Your task to perform on an android device: open app "DuckDuckGo Privacy Browser" (install if not already installed) and go to login screen Image 0: 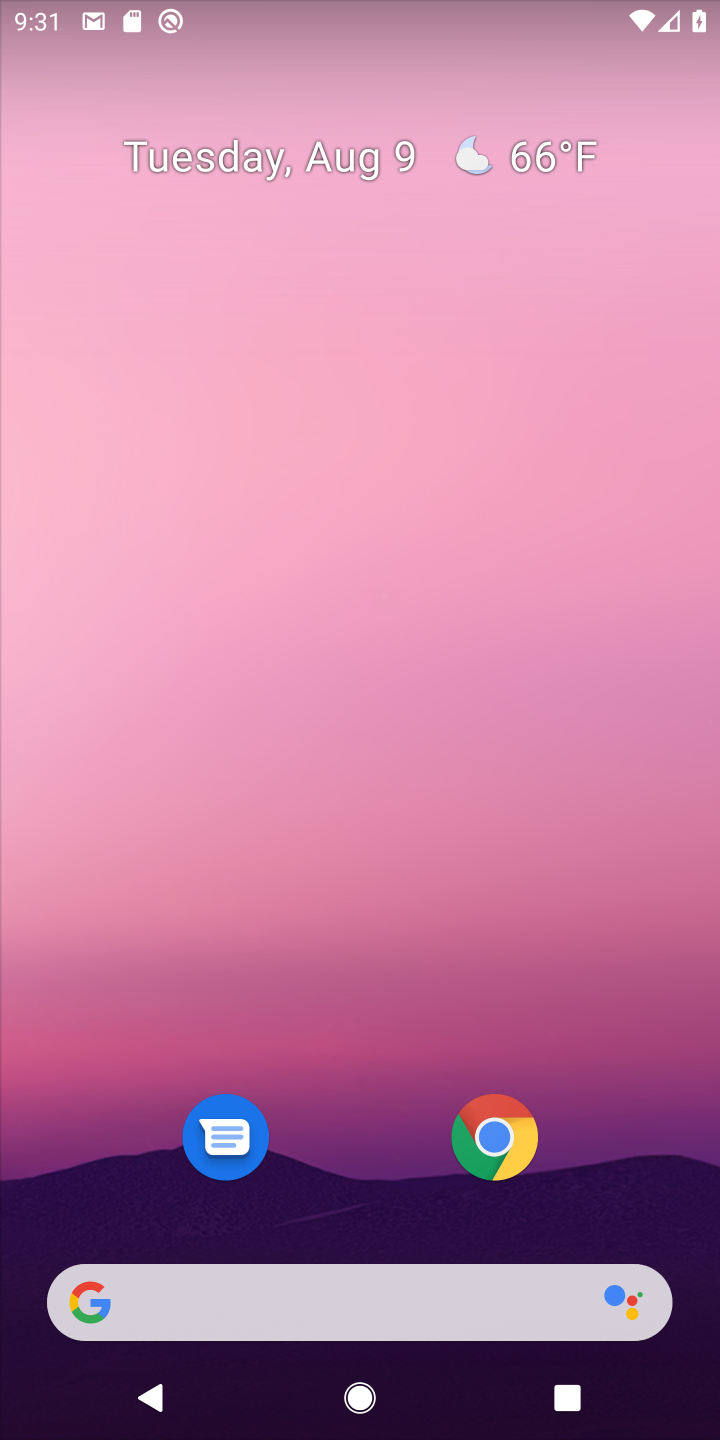
Step 0: drag from (346, 1151) to (333, 253)
Your task to perform on an android device: open app "DuckDuckGo Privacy Browser" (install if not already installed) and go to login screen Image 1: 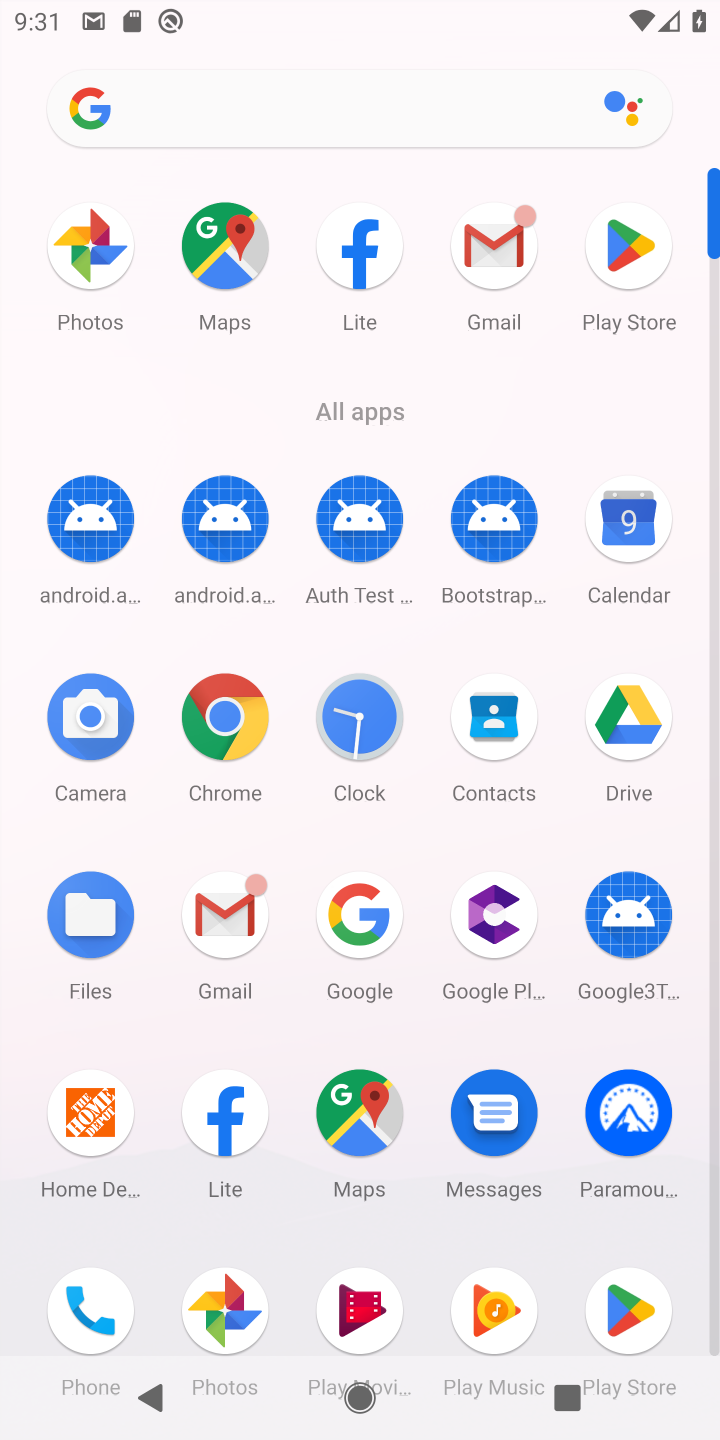
Step 1: click (627, 256)
Your task to perform on an android device: open app "DuckDuckGo Privacy Browser" (install if not already installed) and go to login screen Image 2: 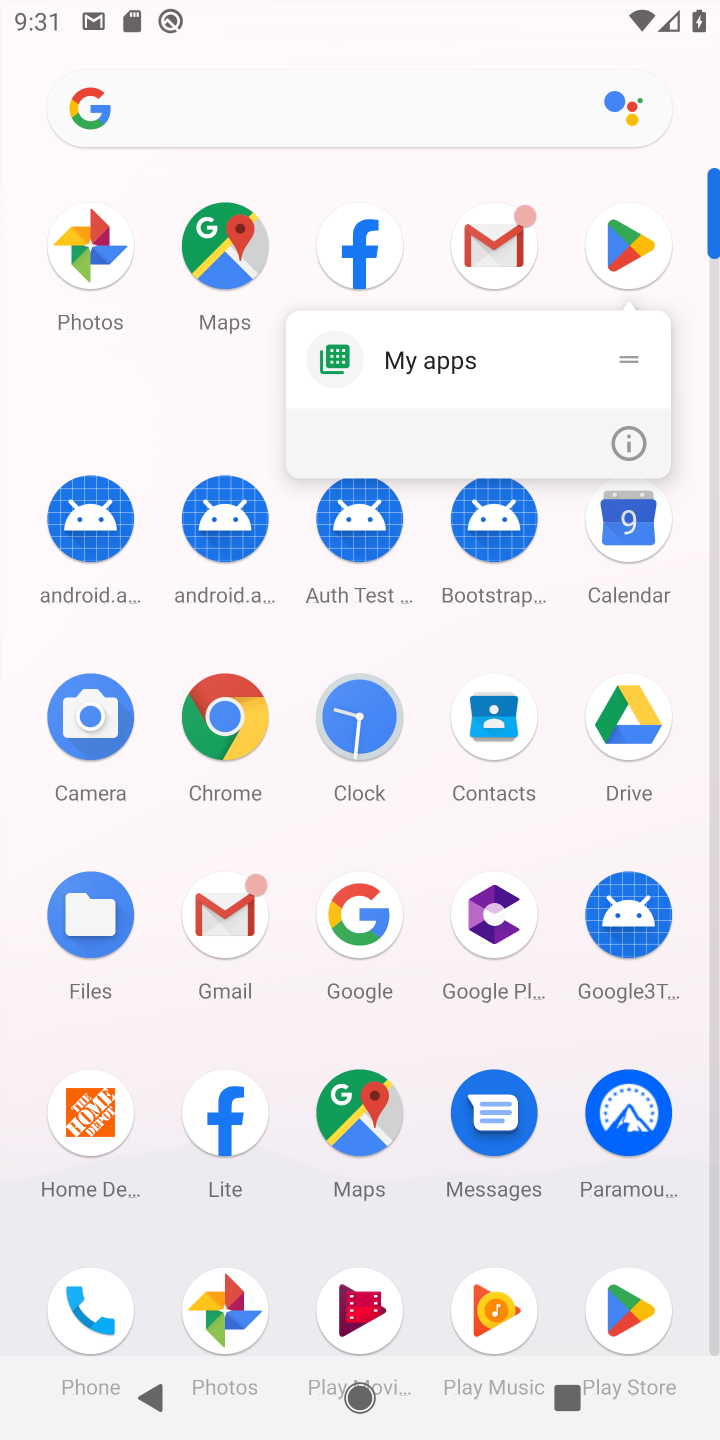
Step 2: click (601, 239)
Your task to perform on an android device: open app "DuckDuckGo Privacy Browser" (install if not already installed) and go to login screen Image 3: 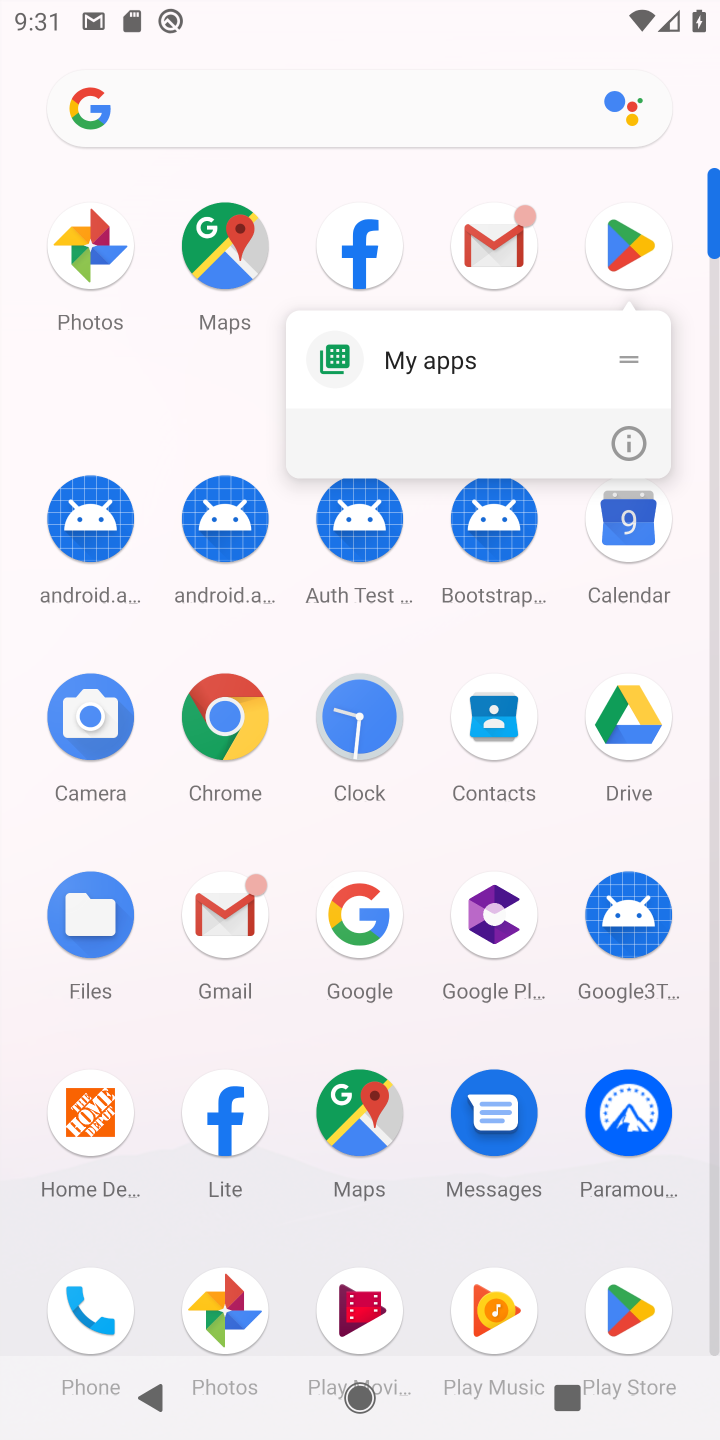
Step 3: click (610, 237)
Your task to perform on an android device: open app "DuckDuckGo Privacy Browser" (install if not already installed) and go to login screen Image 4: 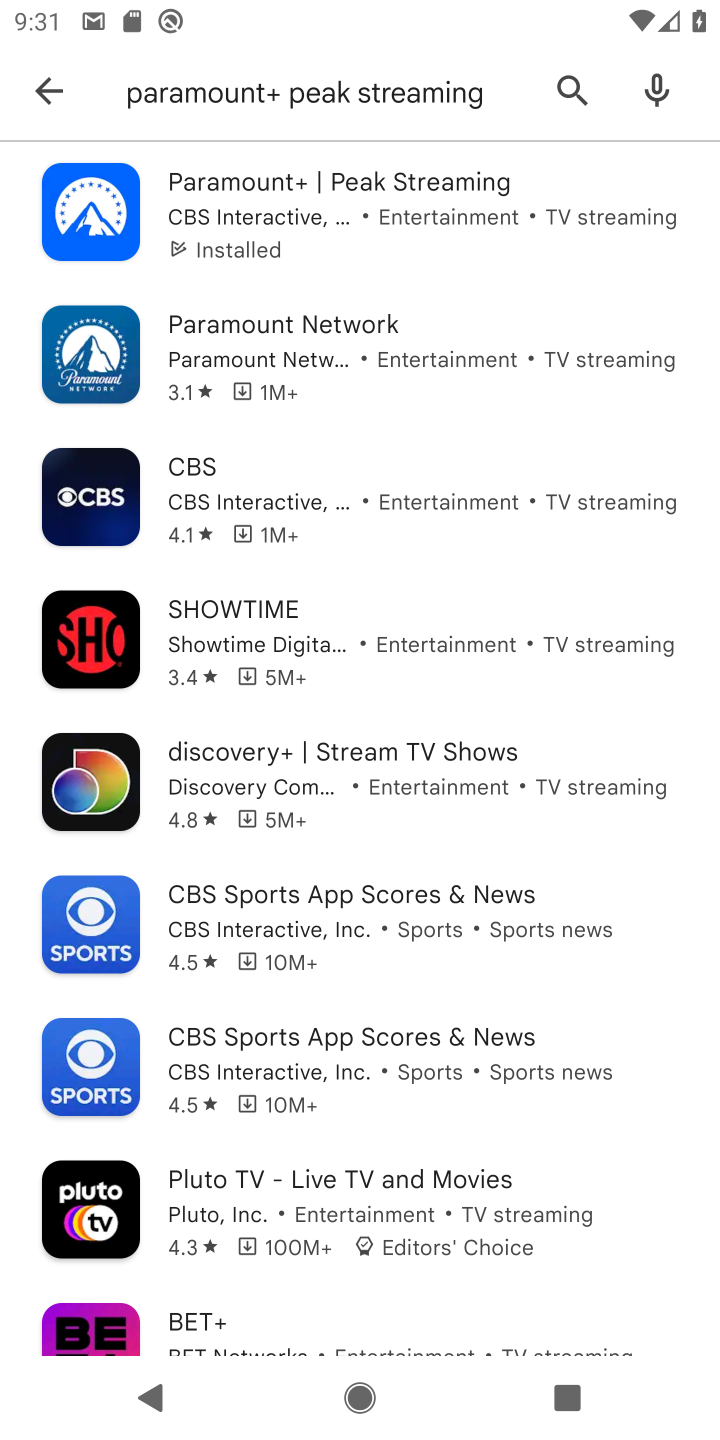
Step 4: click (577, 82)
Your task to perform on an android device: open app "DuckDuckGo Privacy Browser" (install if not already installed) and go to login screen Image 5: 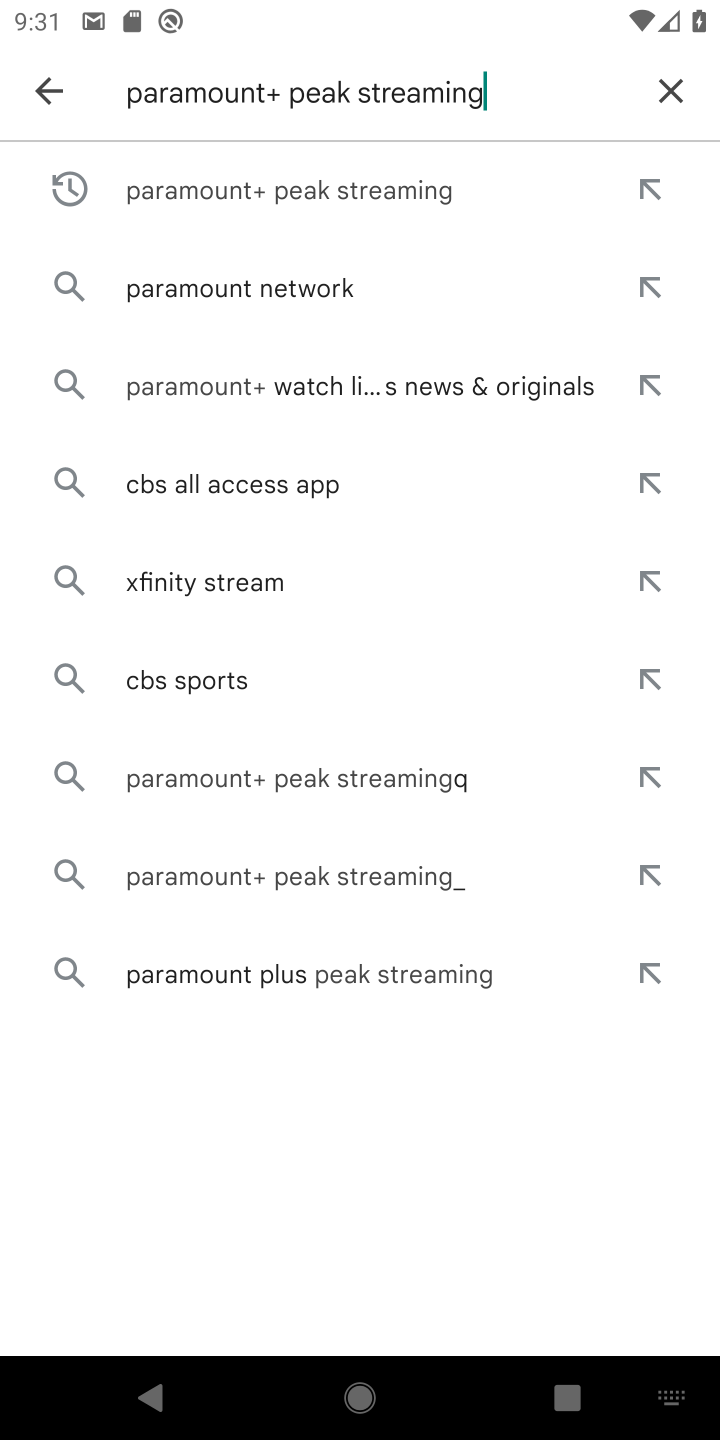
Step 5: click (660, 71)
Your task to perform on an android device: open app "DuckDuckGo Privacy Browser" (install if not already installed) and go to login screen Image 6: 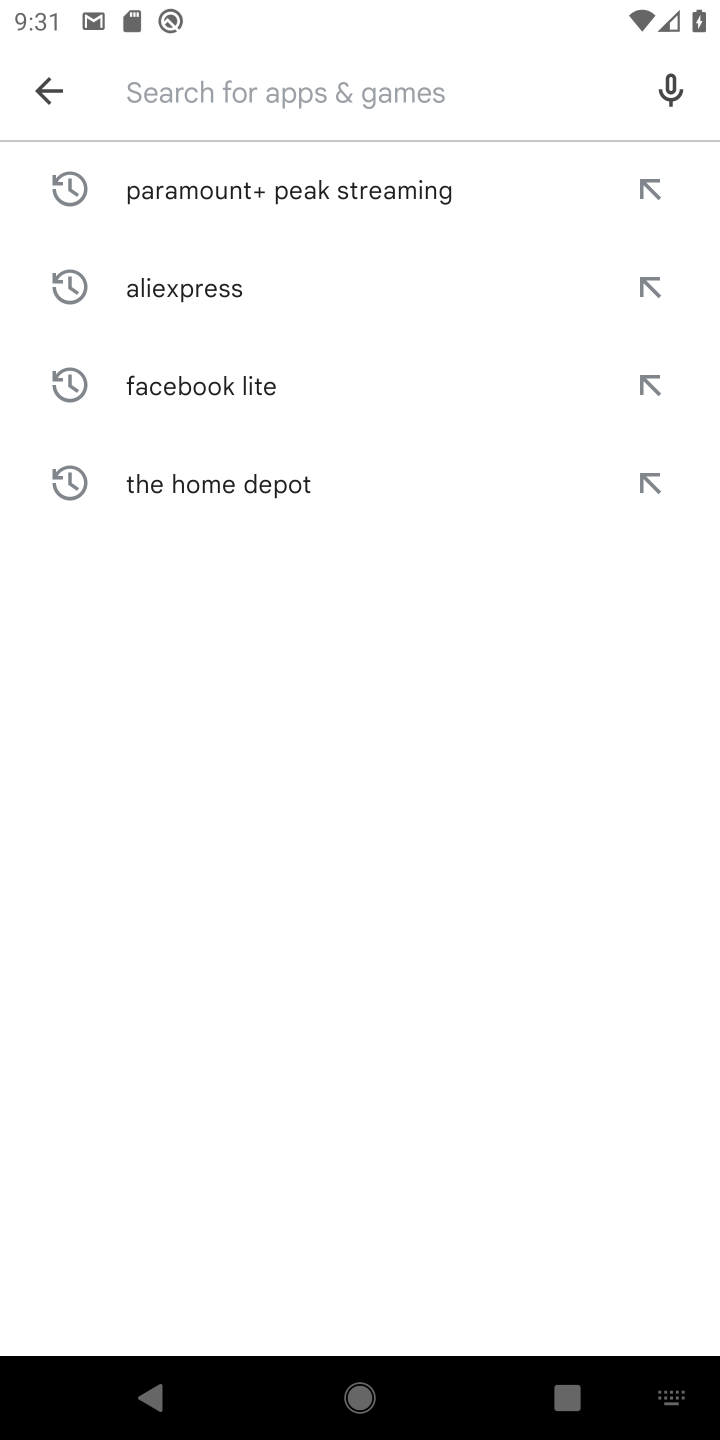
Step 6: type "DuckDuckGo Privacy Browser"
Your task to perform on an android device: open app "DuckDuckGo Privacy Browser" (install if not already installed) and go to login screen Image 7: 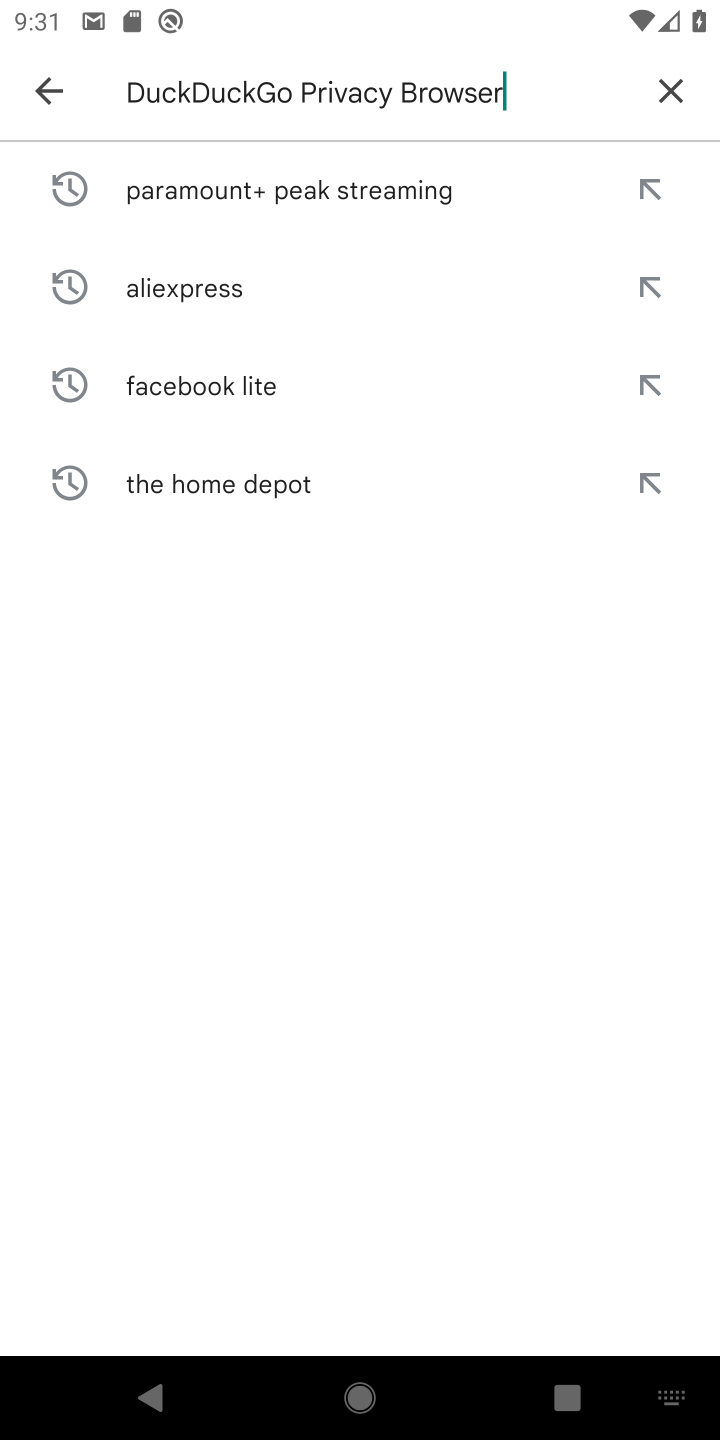
Step 7: type ""
Your task to perform on an android device: open app "DuckDuckGo Privacy Browser" (install if not already installed) and go to login screen Image 8: 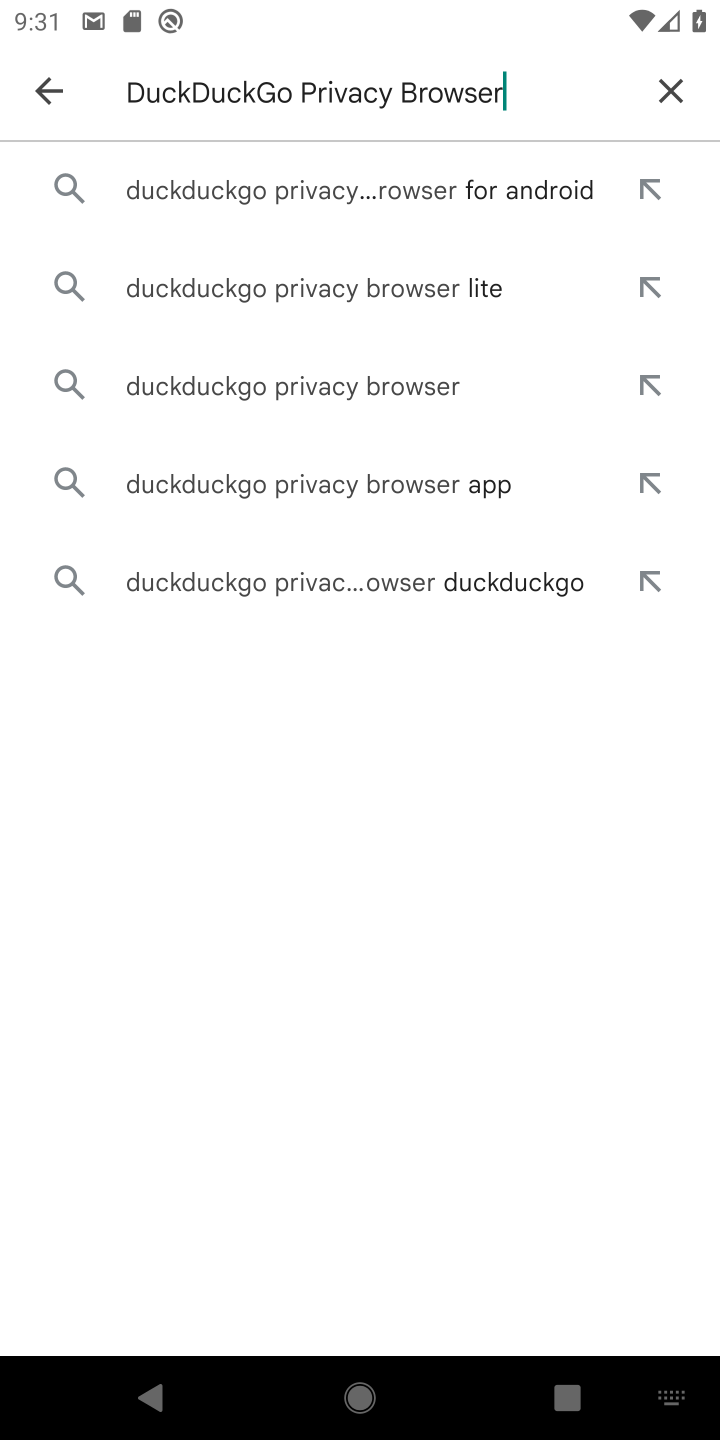
Step 8: click (222, 201)
Your task to perform on an android device: open app "DuckDuckGo Privacy Browser" (install if not already installed) and go to login screen Image 9: 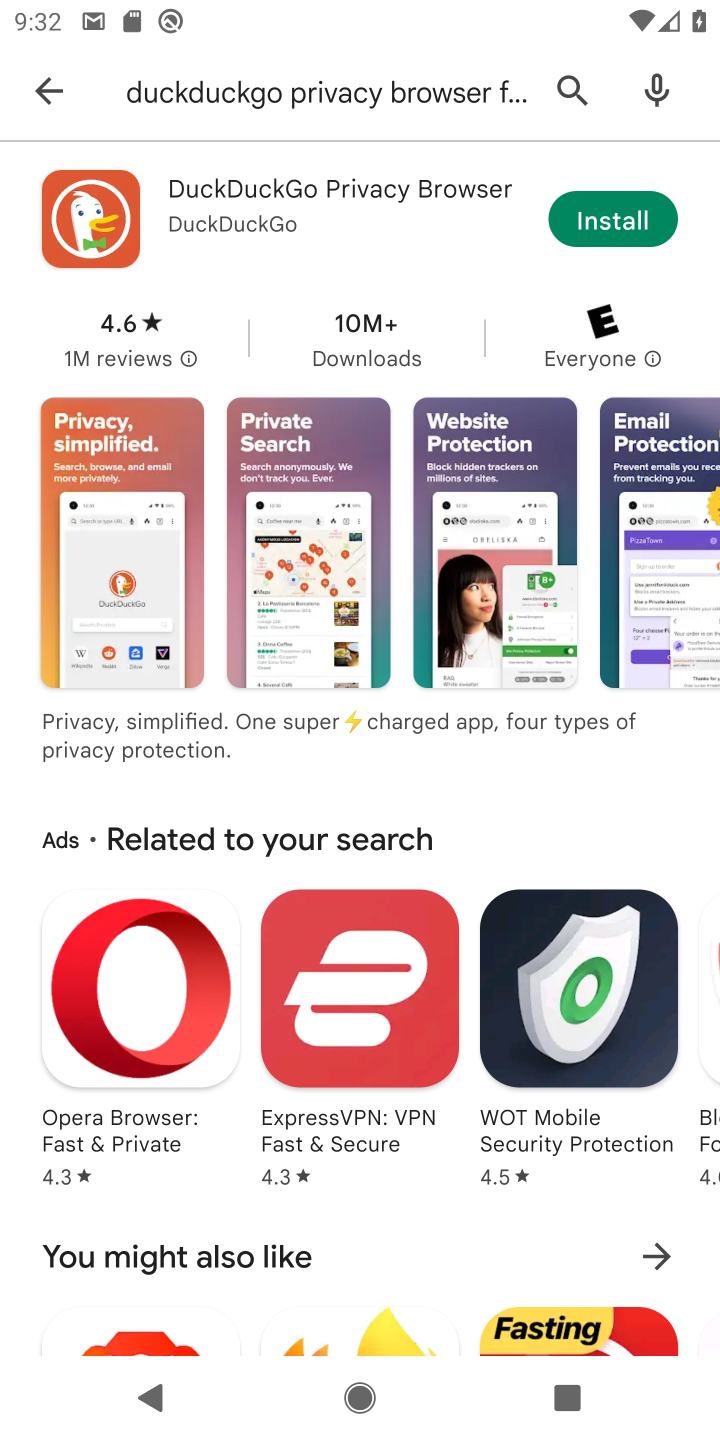
Step 9: click (611, 220)
Your task to perform on an android device: open app "DuckDuckGo Privacy Browser" (install if not already installed) and go to login screen Image 10: 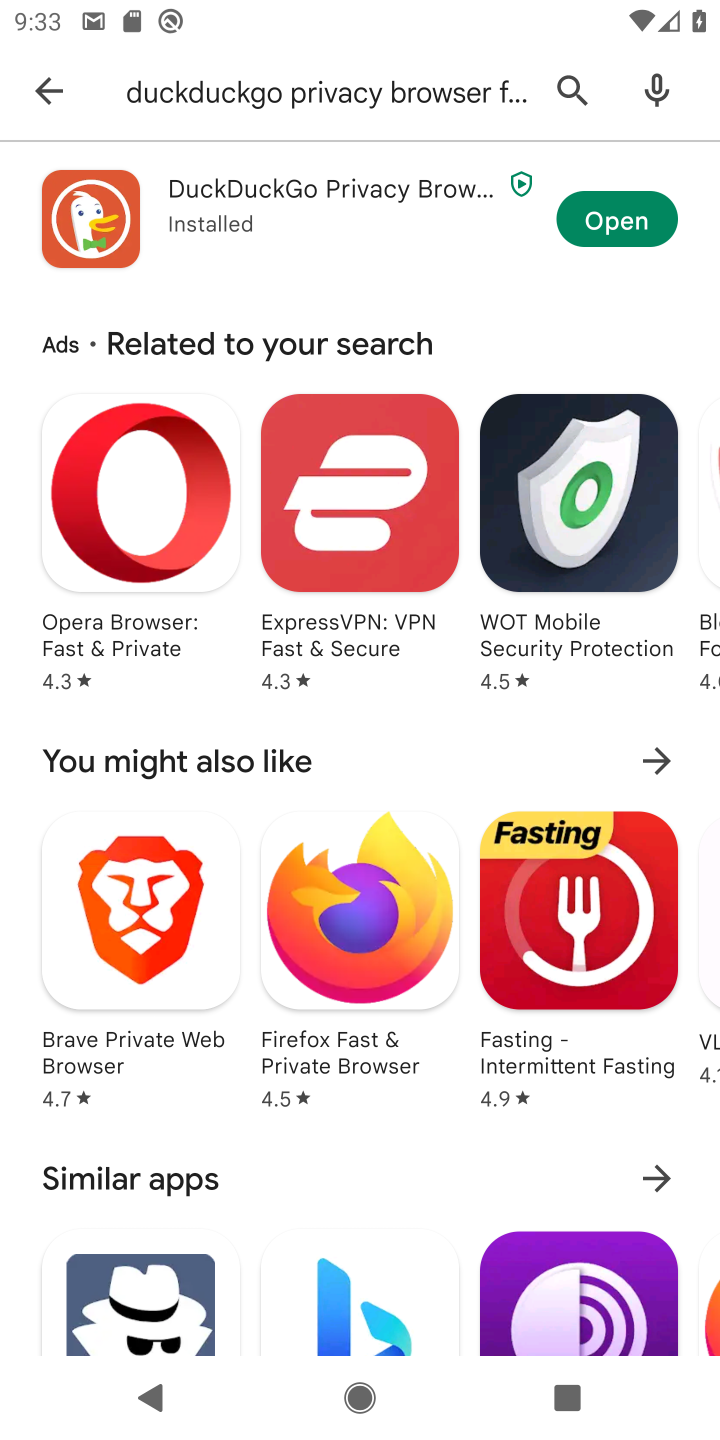
Step 10: click (596, 236)
Your task to perform on an android device: open app "DuckDuckGo Privacy Browser" (install if not already installed) and go to login screen Image 11: 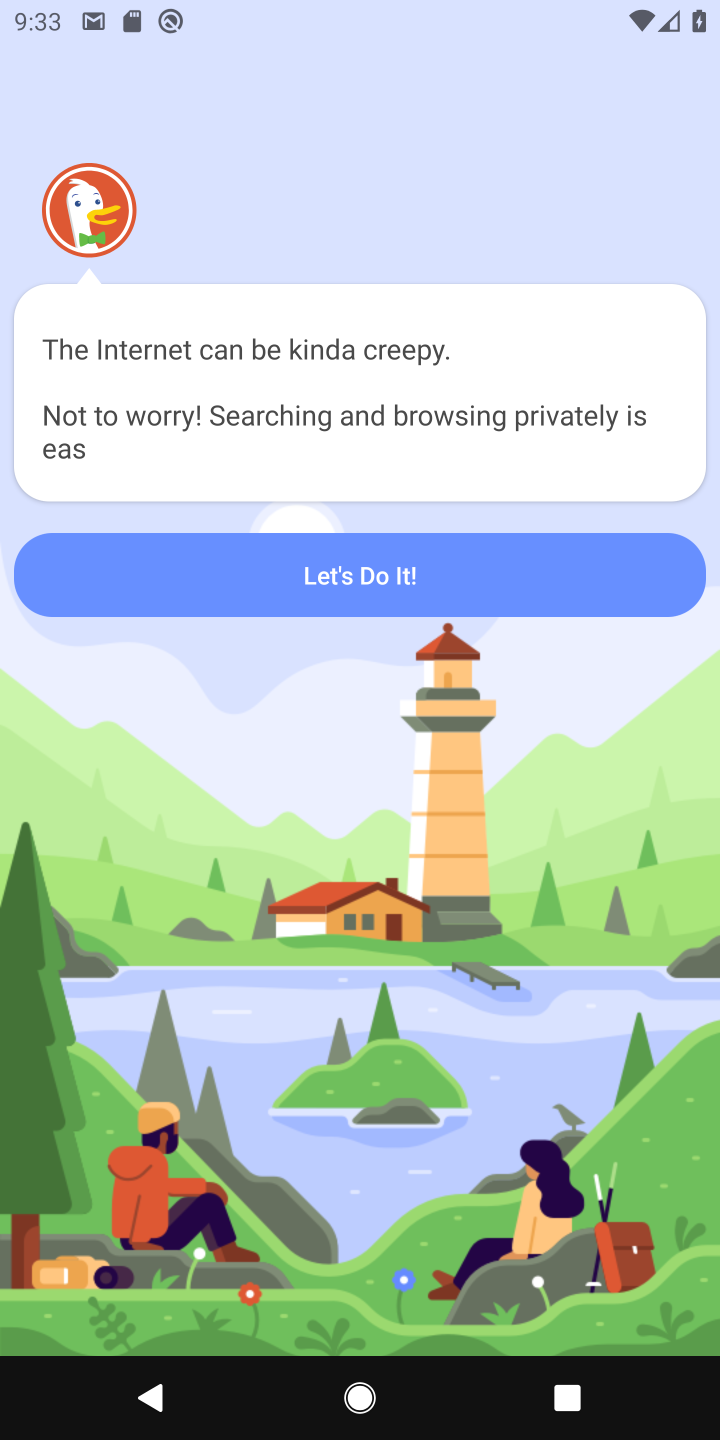
Step 11: task complete